Your task to perform on an android device: Search for "acer predator" on ebay.com, select the first entry, add it to the cart, then select checkout. Image 0: 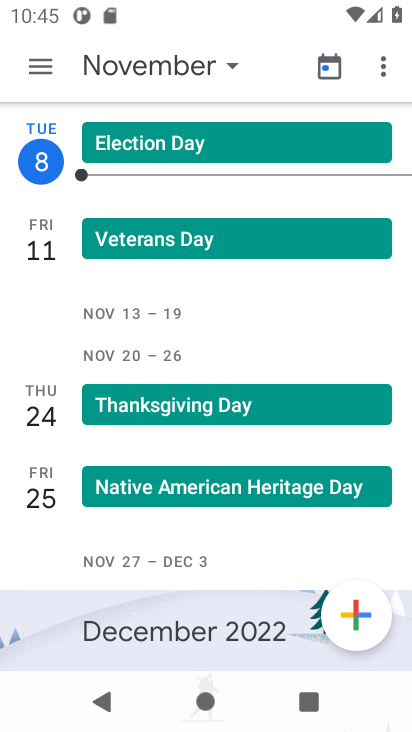
Step 0: press home button
Your task to perform on an android device: Search for "acer predator" on ebay.com, select the first entry, add it to the cart, then select checkout. Image 1: 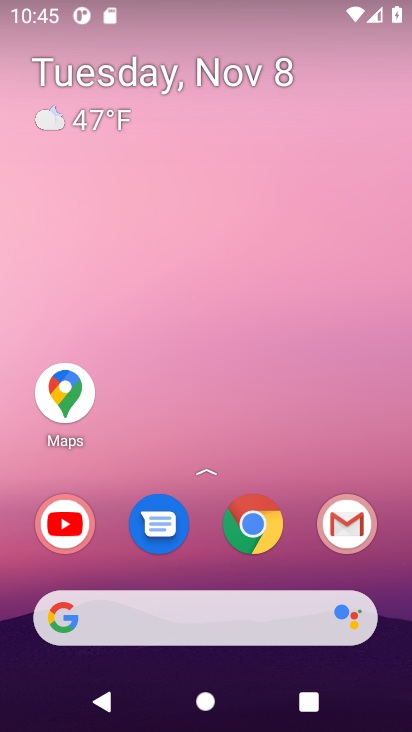
Step 1: click (260, 529)
Your task to perform on an android device: Search for "acer predator" on ebay.com, select the first entry, add it to the cart, then select checkout. Image 2: 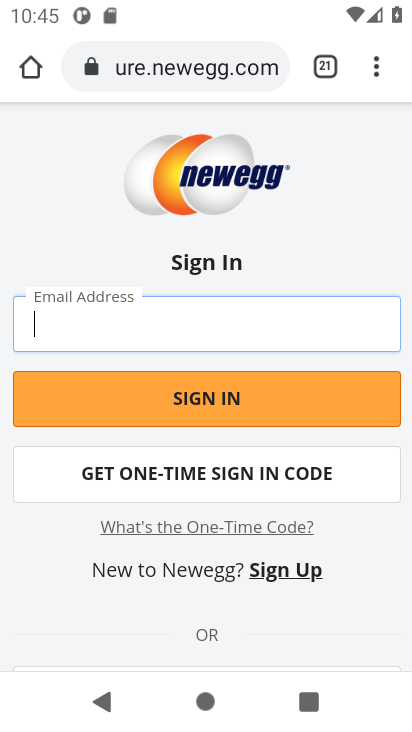
Step 2: click (207, 57)
Your task to perform on an android device: Search for "acer predator" on ebay.com, select the first entry, add it to the cart, then select checkout. Image 3: 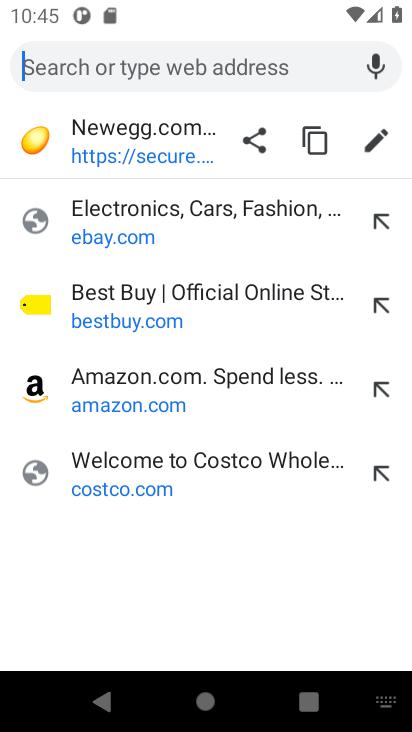
Step 3: click (110, 220)
Your task to perform on an android device: Search for "acer predator" on ebay.com, select the first entry, add it to the cart, then select checkout. Image 4: 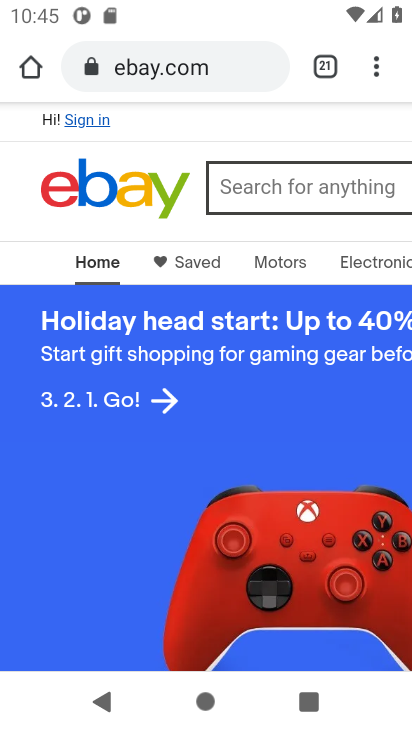
Step 4: click (302, 194)
Your task to perform on an android device: Search for "acer predator" on ebay.com, select the first entry, add it to the cart, then select checkout. Image 5: 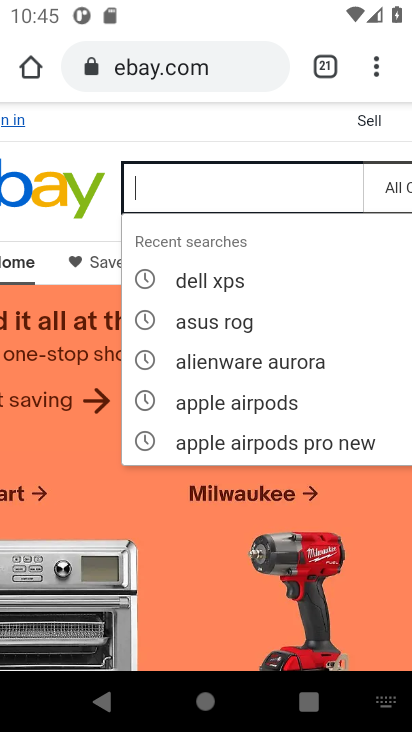
Step 5: type "acer predator"
Your task to perform on an android device: Search for "acer predator" on ebay.com, select the first entry, add it to the cart, then select checkout. Image 6: 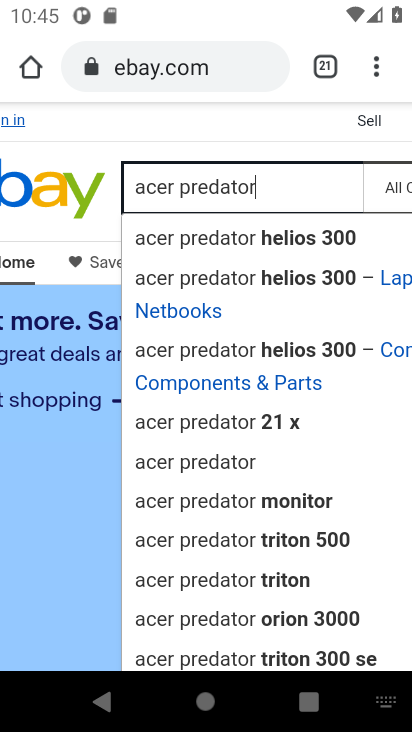
Step 6: click (208, 461)
Your task to perform on an android device: Search for "acer predator" on ebay.com, select the first entry, add it to the cart, then select checkout. Image 7: 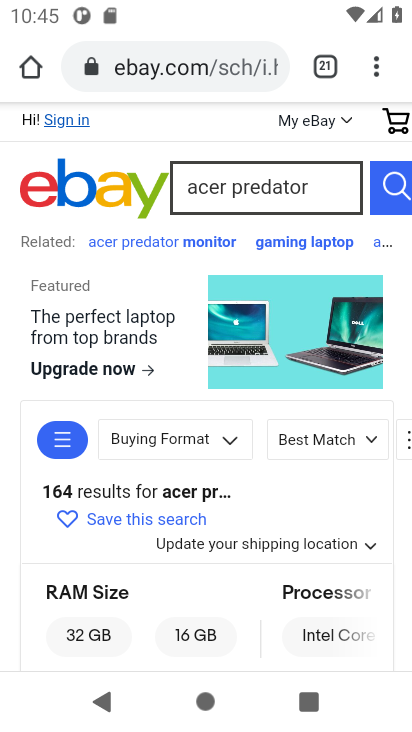
Step 7: drag from (273, 548) to (232, 231)
Your task to perform on an android device: Search for "acer predator" on ebay.com, select the first entry, add it to the cart, then select checkout. Image 8: 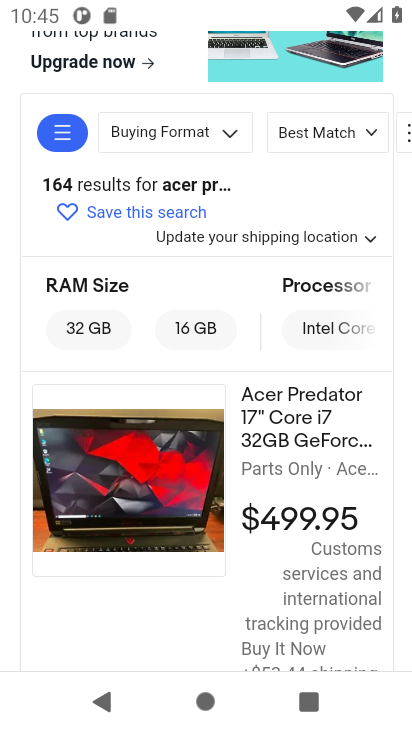
Step 8: drag from (163, 522) to (165, 335)
Your task to perform on an android device: Search for "acer predator" on ebay.com, select the first entry, add it to the cart, then select checkout. Image 9: 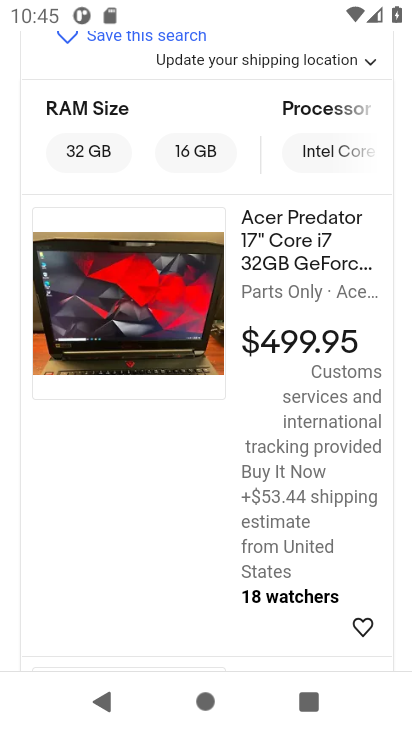
Step 9: click (164, 334)
Your task to perform on an android device: Search for "acer predator" on ebay.com, select the first entry, add it to the cart, then select checkout. Image 10: 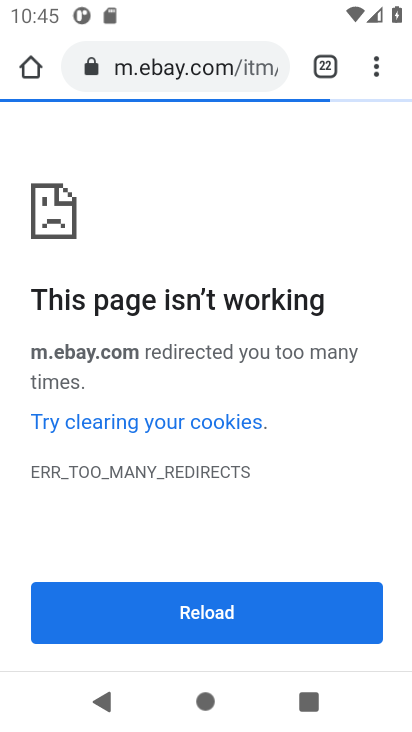
Step 10: task complete